Your task to perform on an android device: Open Maps and search for coffee Image 0: 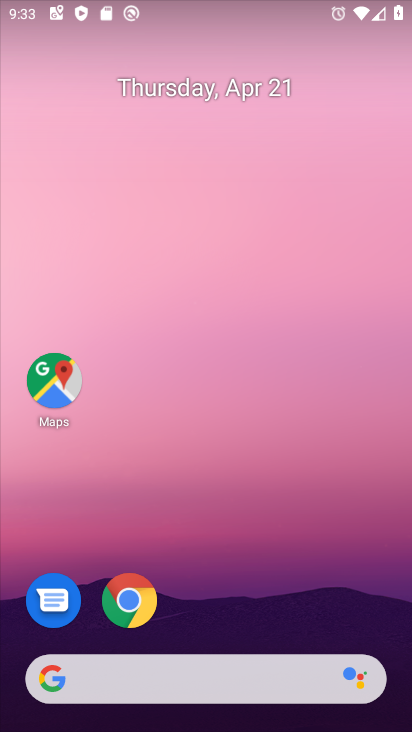
Step 0: click (57, 384)
Your task to perform on an android device: Open Maps and search for coffee Image 1: 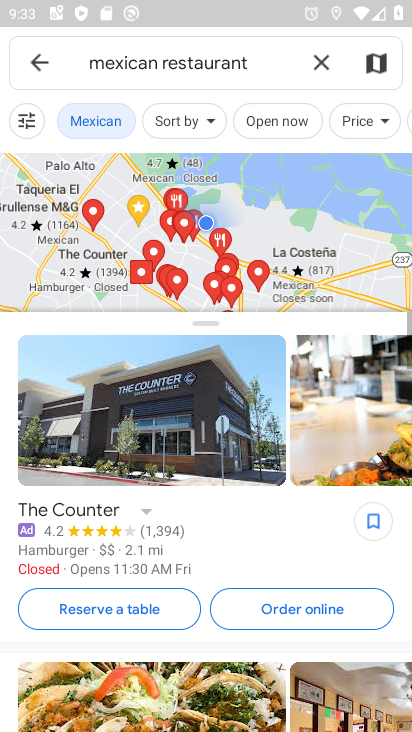
Step 1: click (318, 59)
Your task to perform on an android device: Open Maps and search for coffee Image 2: 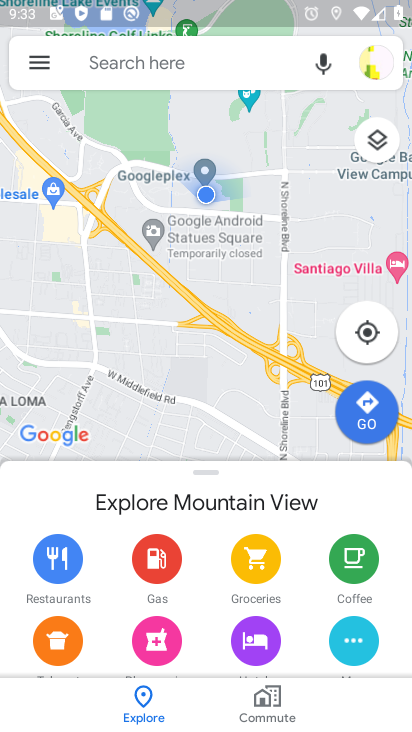
Step 2: click (175, 65)
Your task to perform on an android device: Open Maps and search for coffee Image 3: 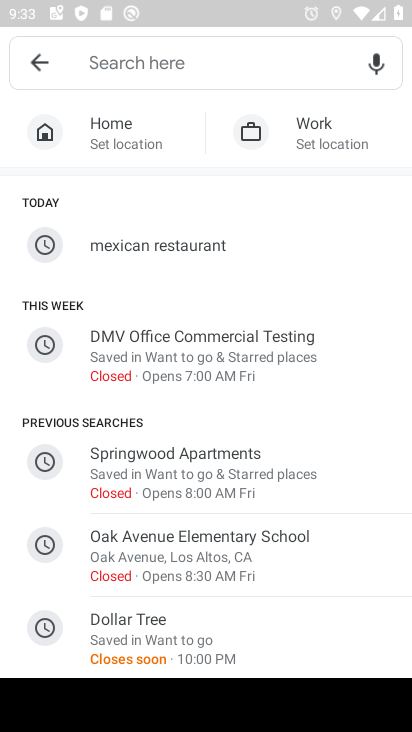
Step 3: type "coffee"
Your task to perform on an android device: Open Maps and search for coffee Image 4: 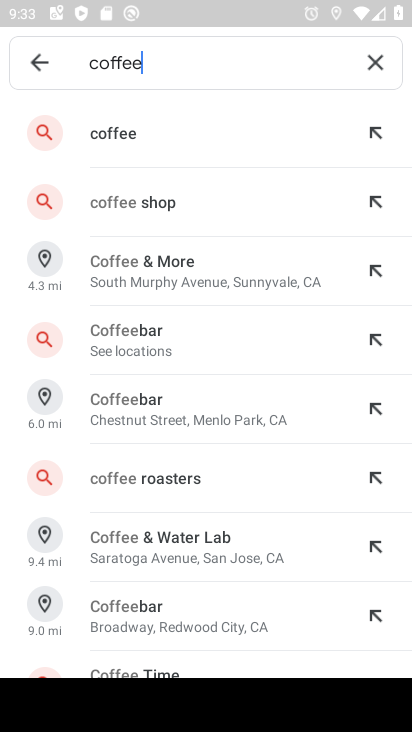
Step 4: click (148, 135)
Your task to perform on an android device: Open Maps and search for coffee Image 5: 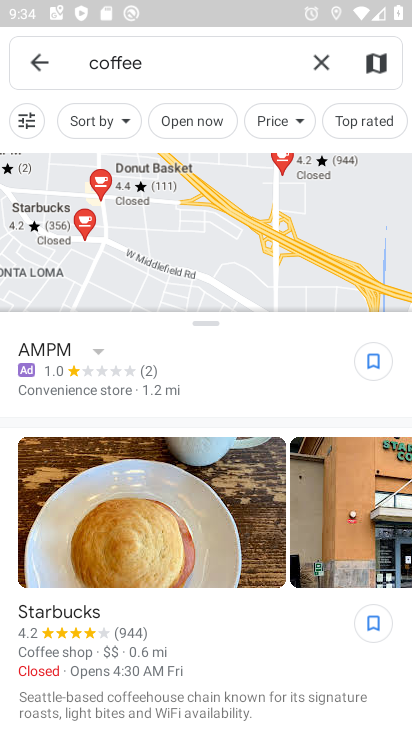
Step 5: task complete